Your task to perform on an android device: turn on improve location accuracy Image 0: 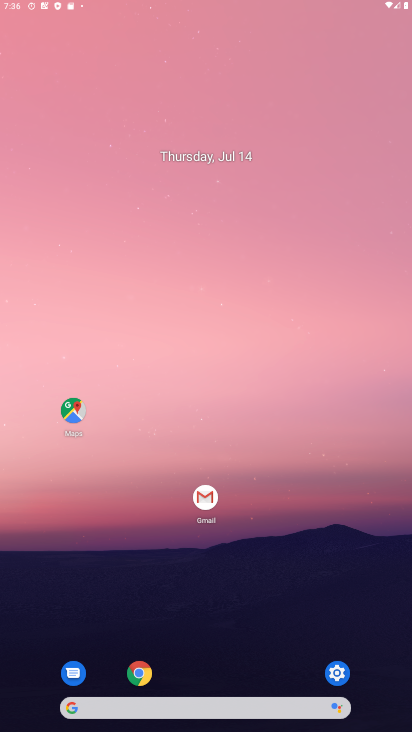
Step 0: press home button
Your task to perform on an android device: turn on improve location accuracy Image 1: 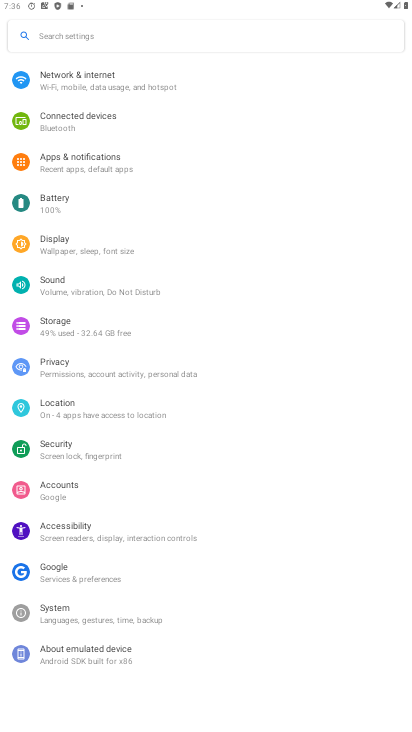
Step 1: drag from (243, 577) to (286, 224)
Your task to perform on an android device: turn on improve location accuracy Image 2: 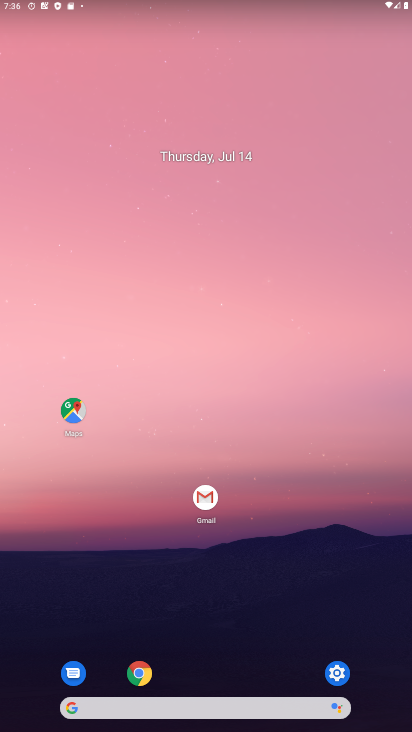
Step 2: drag from (249, 330) to (264, 272)
Your task to perform on an android device: turn on improve location accuracy Image 3: 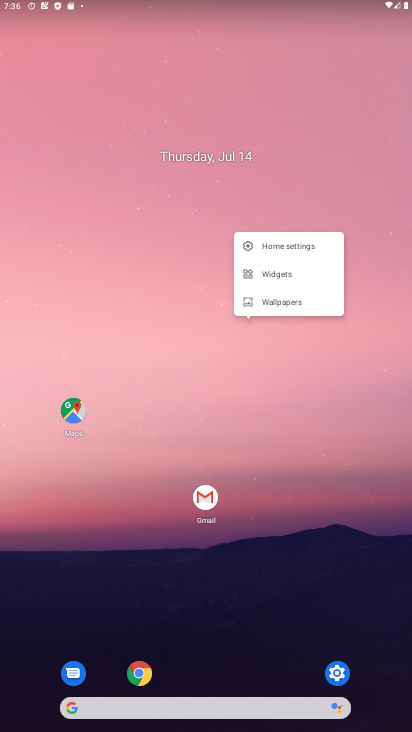
Step 3: click (258, 430)
Your task to perform on an android device: turn on improve location accuracy Image 4: 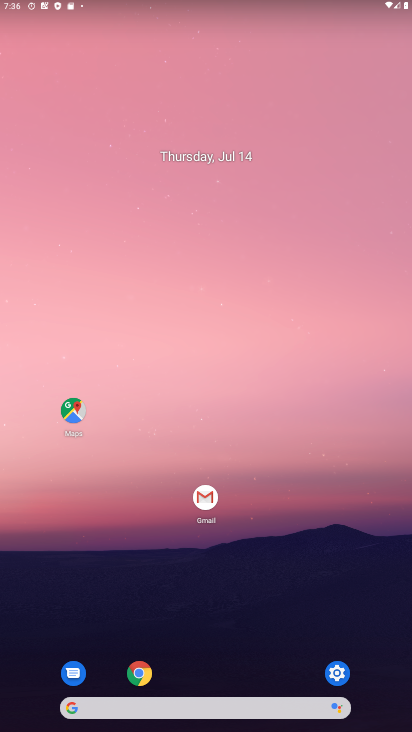
Step 4: click (334, 675)
Your task to perform on an android device: turn on improve location accuracy Image 5: 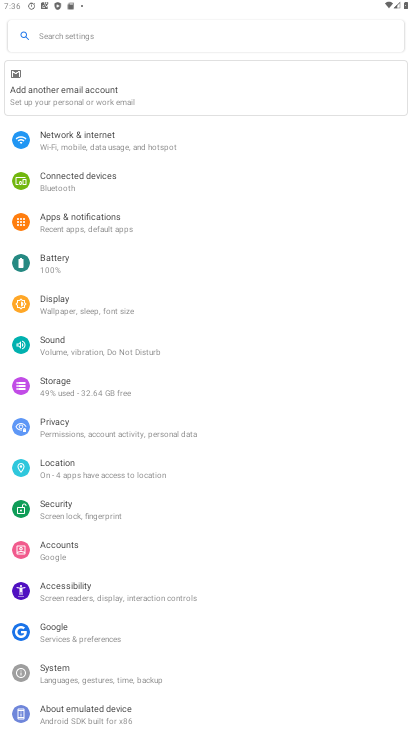
Step 5: click (80, 464)
Your task to perform on an android device: turn on improve location accuracy Image 6: 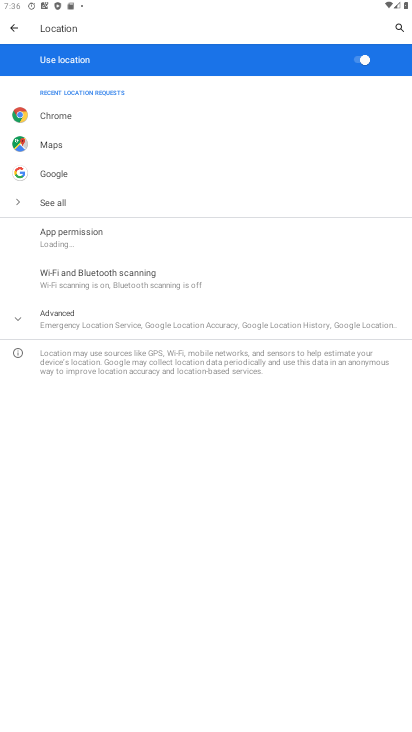
Step 6: click (21, 315)
Your task to perform on an android device: turn on improve location accuracy Image 7: 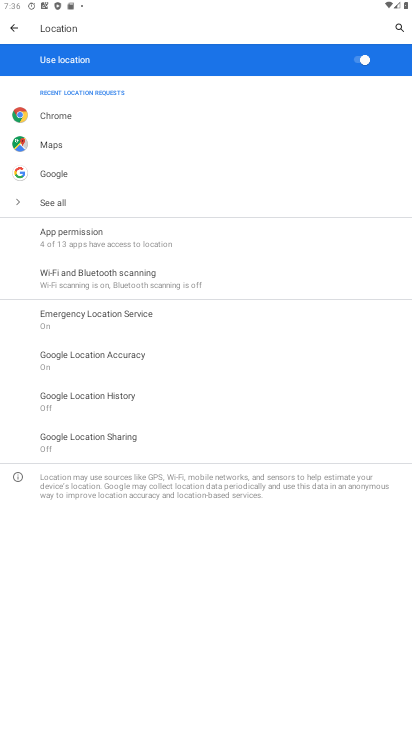
Step 7: click (105, 352)
Your task to perform on an android device: turn on improve location accuracy Image 8: 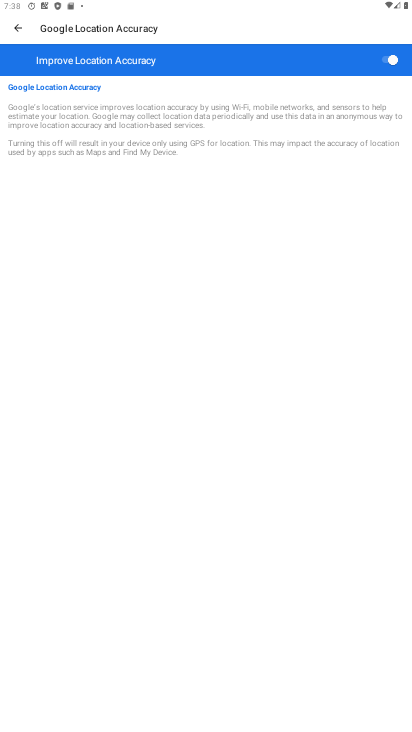
Step 8: task complete